Your task to perform on an android device: Go to ESPN.com Image 0: 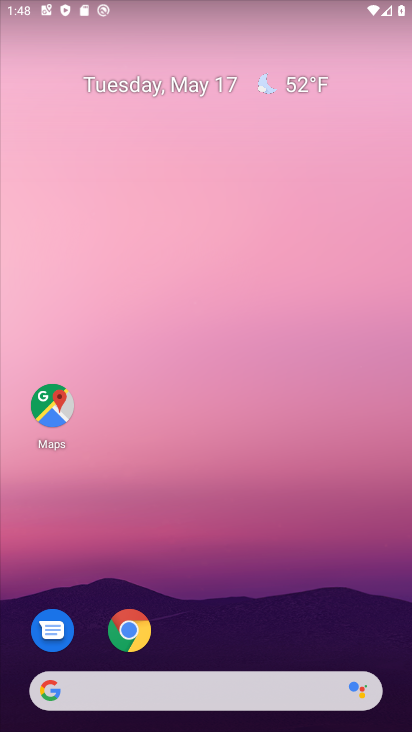
Step 0: click (127, 631)
Your task to perform on an android device: Go to ESPN.com Image 1: 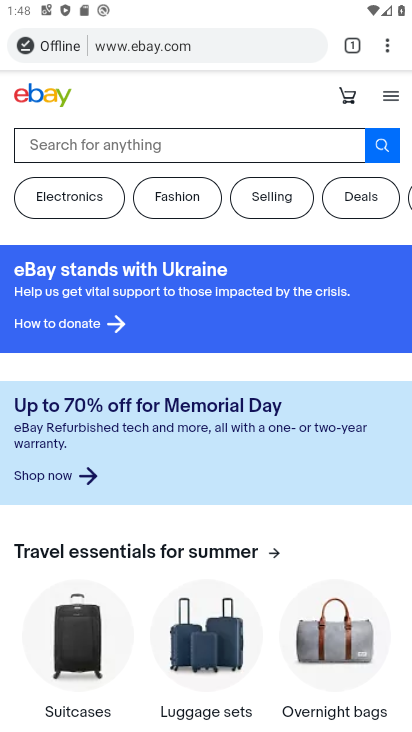
Step 1: click (355, 43)
Your task to perform on an android device: Go to ESPN.com Image 2: 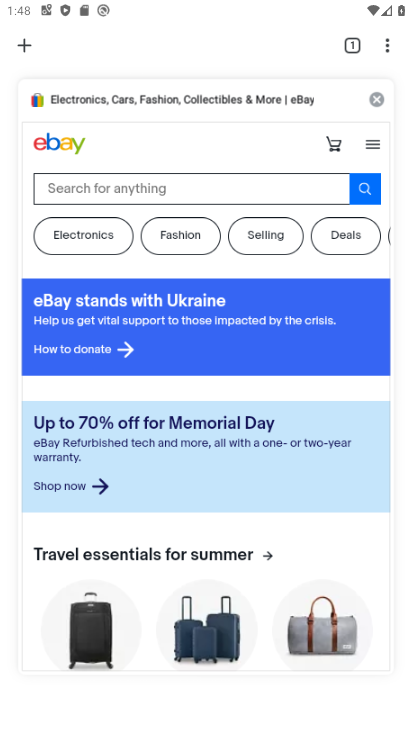
Step 2: click (23, 41)
Your task to perform on an android device: Go to ESPN.com Image 3: 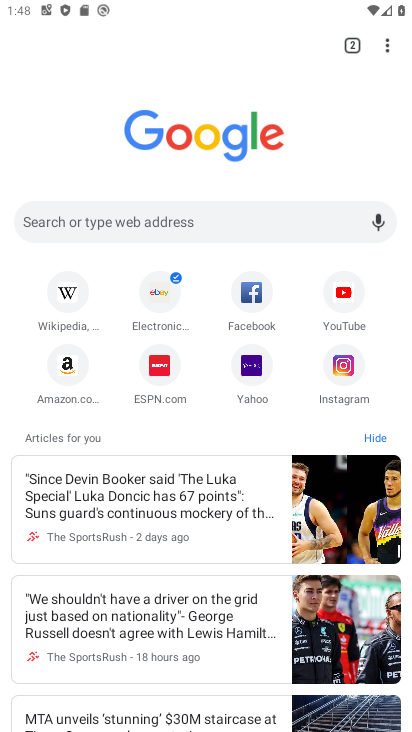
Step 3: click (158, 364)
Your task to perform on an android device: Go to ESPN.com Image 4: 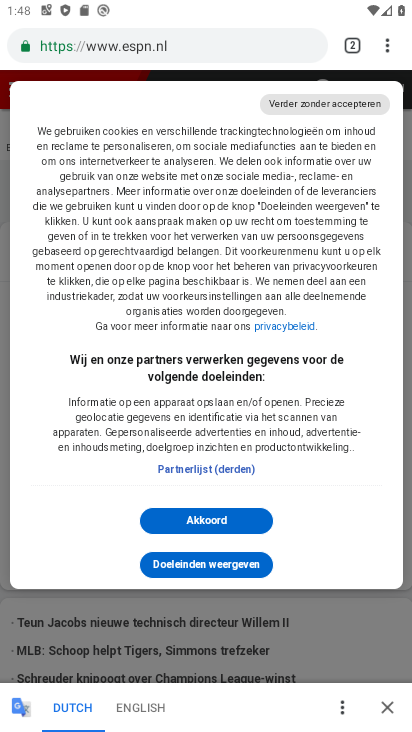
Step 4: task complete